Your task to perform on an android device: toggle airplane mode Image 0: 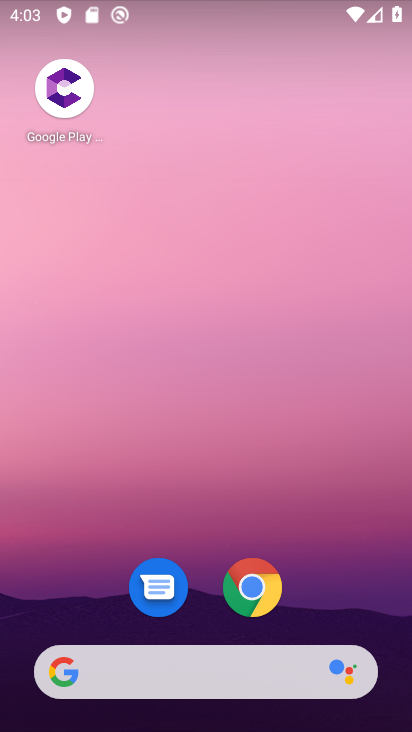
Step 0: drag from (28, 703) to (229, 21)
Your task to perform on an android device: toggle airplane mode Image 1: 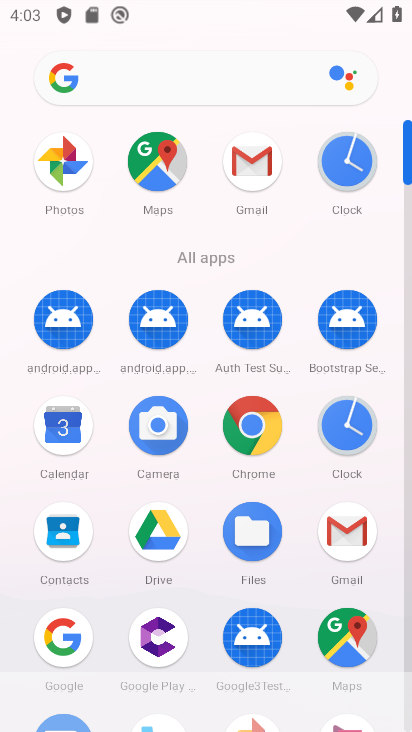
Step 1: drag from (155, 531) to (155, 243)
Your task to perform on an android device: toggle airplane mode Image 2: 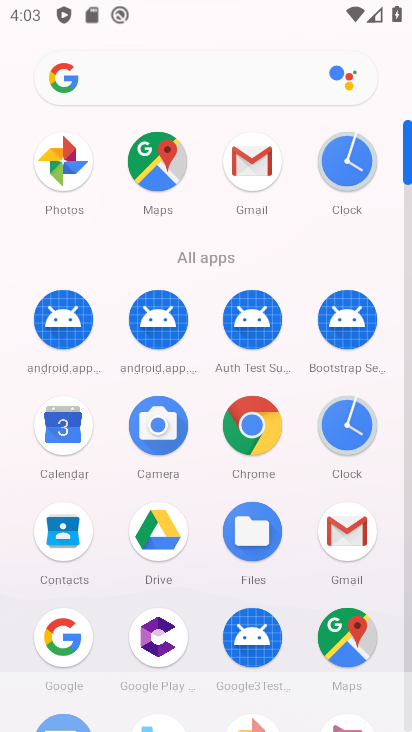
Step 2: drag from (123, 689) to (192, 365)
Your task to perform on an android device: toggle airplane mode Image 3: 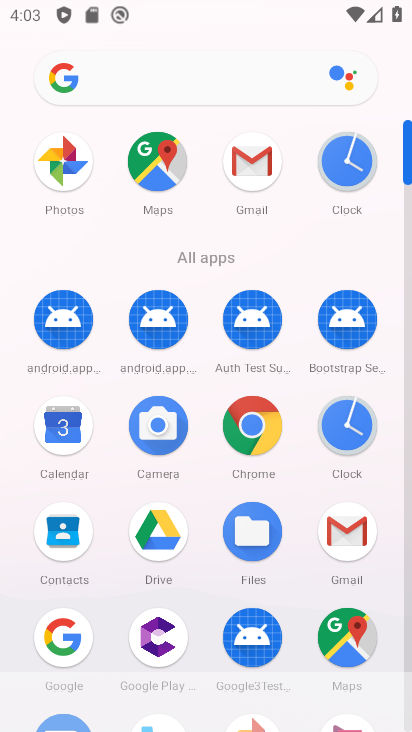
Step 3: drag from (178, 641) to (213, 3)
Your task to perform on an android device: toggle airplane mode Image 4: 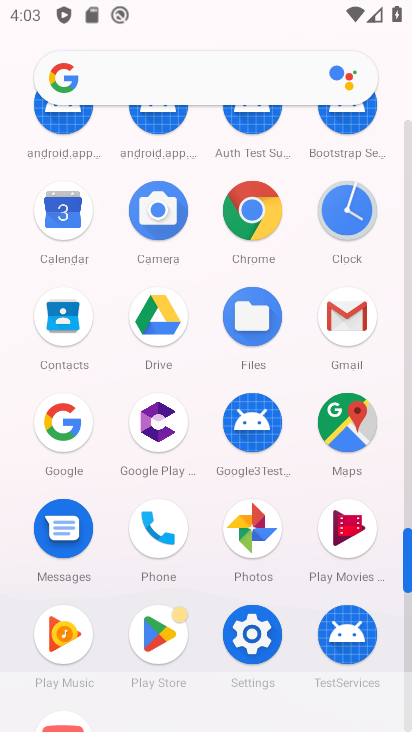
Step 4: click (259, 620)
Your task to perform on an android device: toggle airplane mode Image 5: 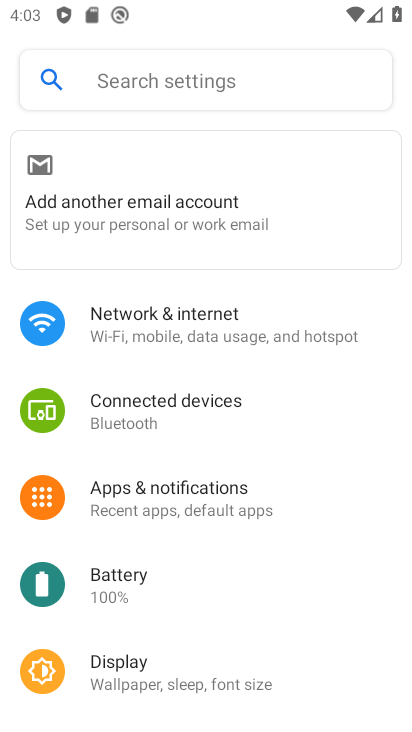
Step 5: click (159, 321)
Your task to perform on an android device: toggle airplane mode Image 6: 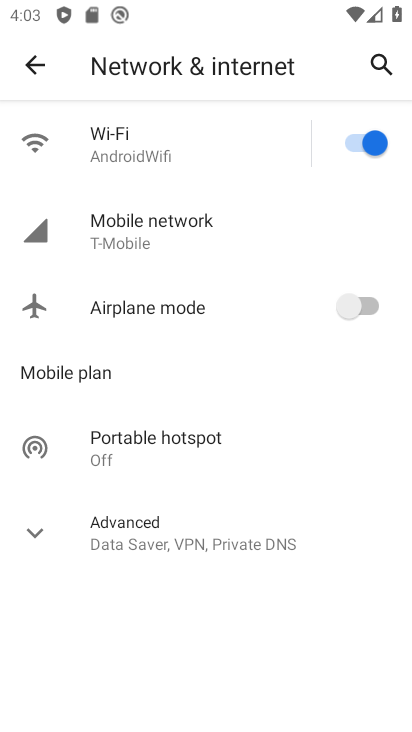
Step 6: task complete